Your task to perform on an android device: Open calendar and show me the fourth week of next month Image 0: 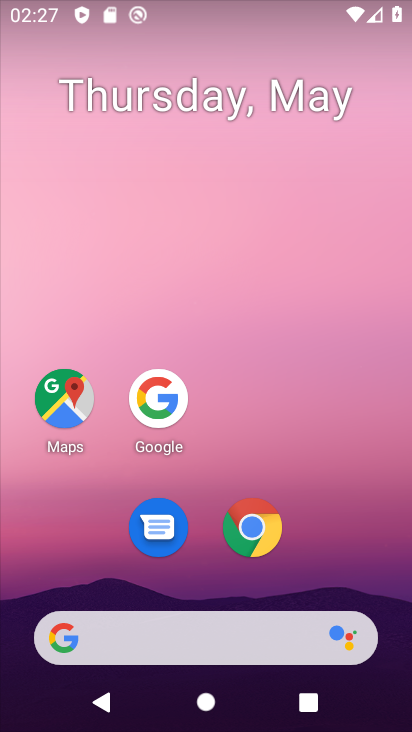
Step 0: click (316, 492)
Your task to perform on an android device: Open calendar and show me the fourth week of next month Image 1: 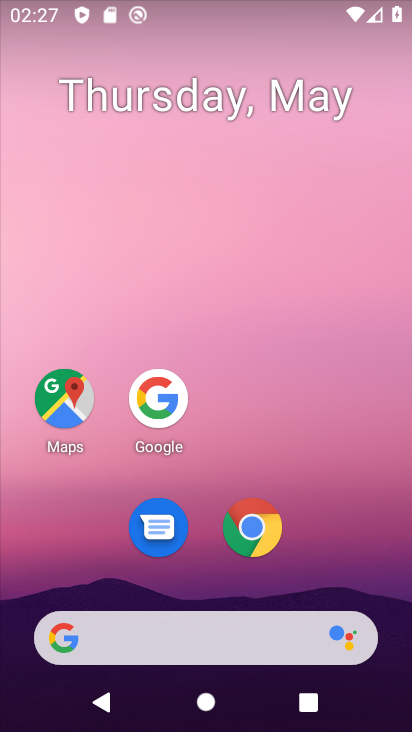
Step 1: drag from (195, 570) to (214, 134)
Your task to perform on an android device: Open calendar and show me the fourth week of next month Image 2: 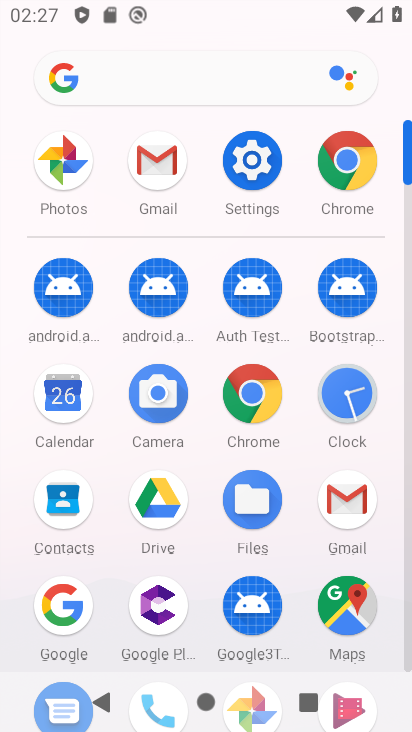
Step 2: click (53, 387)
Your task to perform on an android device: Open calendar and show me the fourth week of next month Image 3: 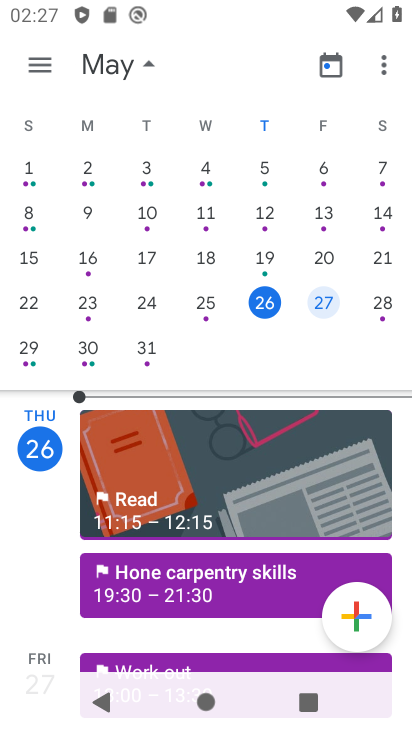
Step 3: drag from (392, 272) to (16, 261)
Your task to perform on an android device: Open calendar and show me the fourth week of next month Image 4: 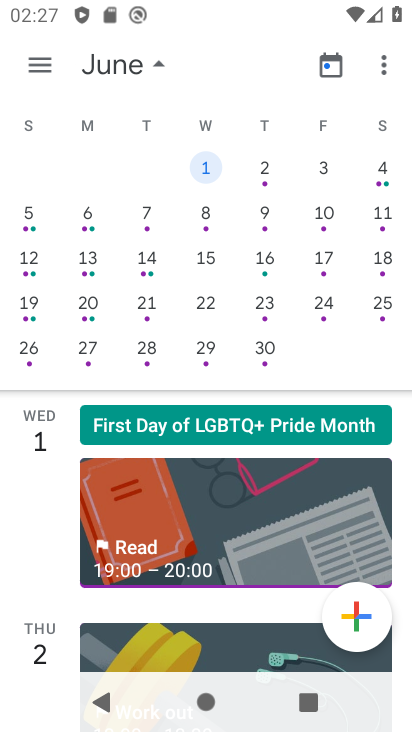
Step 4: click (258, 298)
Your task to perform on an android device: Open calendar and show me the fourth week of next month Image 5: 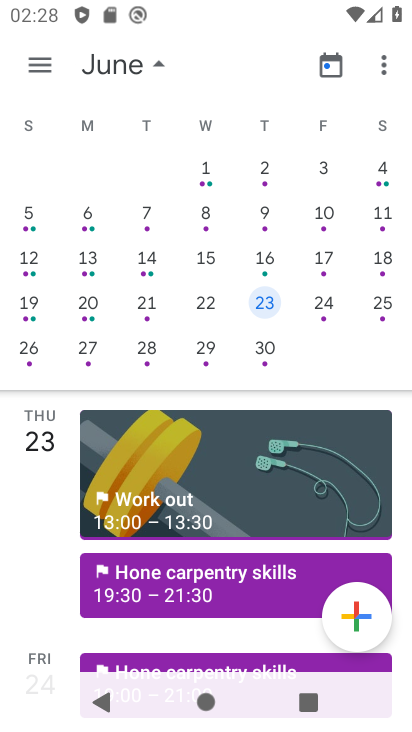
Step 5: click (330, 304)
Your task to perform on an android device: Open calendar and show me the fourth week of next month Image 6: 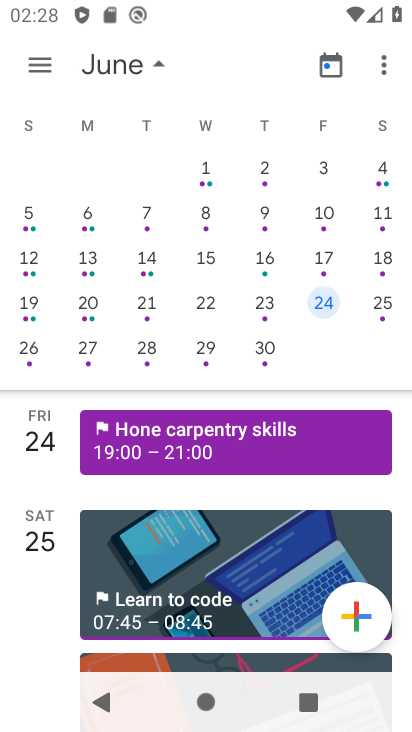
Step 6: task complete